Your task to perform on an android device: Go to privacy settings Image 0: 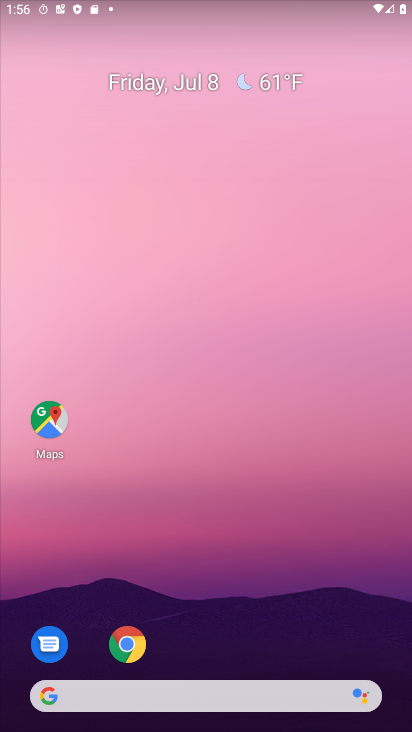
Step 0: click (220, 641)
Your task to perform on an android device: Go to privacy settings Image 1: 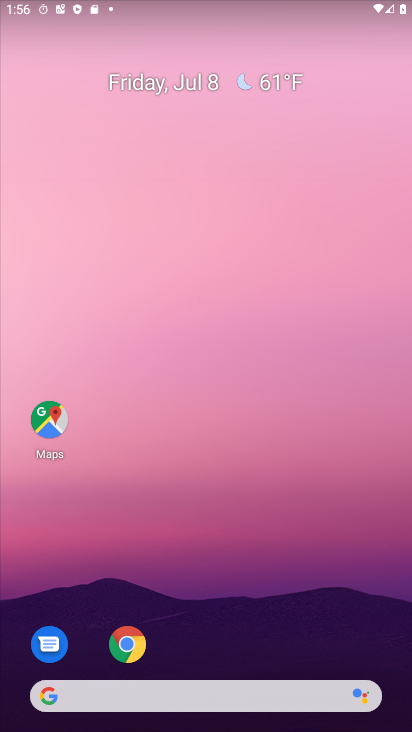
Step 1: drag from (220, 345) to (220, 122)
Your task to perform on an android device: Go to privacy settings Image 2: 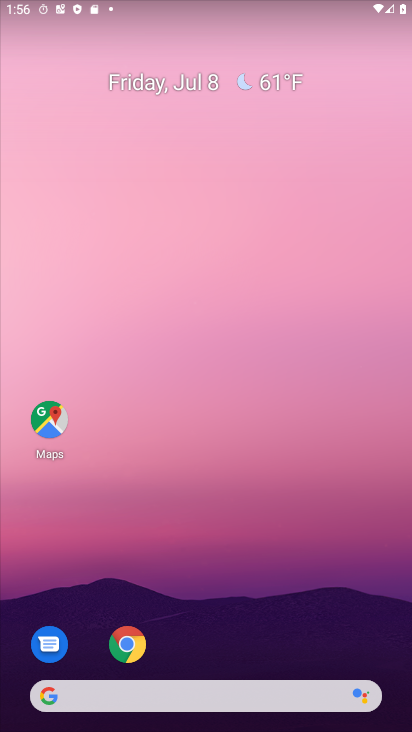
Step 2: drag from (209, 450) to (249, 11)
Your task to perform on an android device: Go to privacy settings Image 3: 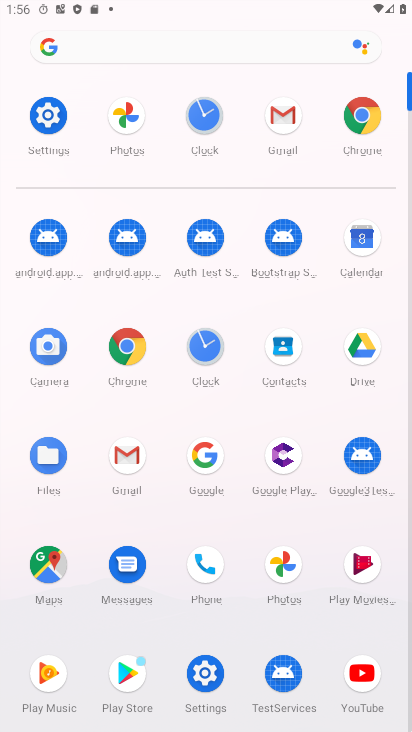
Step 3: click (50, 116)
Your task to perform on an android device: Go to privacy settings Image 4: 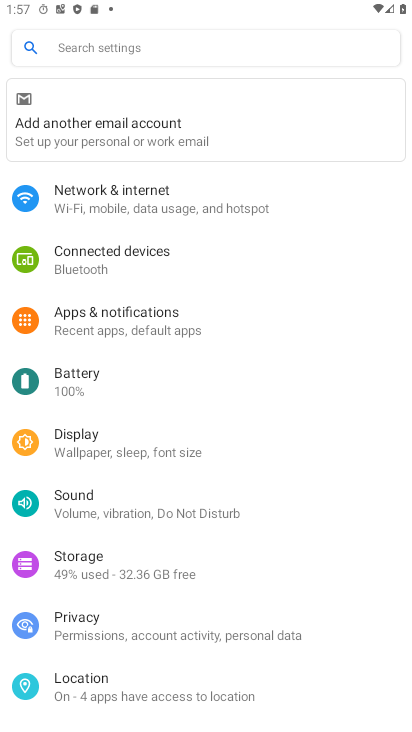
Step 4: click (99, 618)
Your task to perform on an android device: Go to privacy settings Image 5: 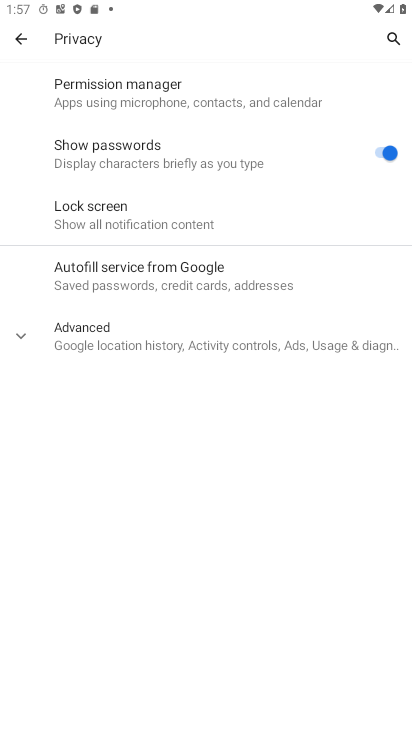
Step 5: task complete